Your task to perform on an android device: read, delete, or share a saved page in the chrome app Image 0: 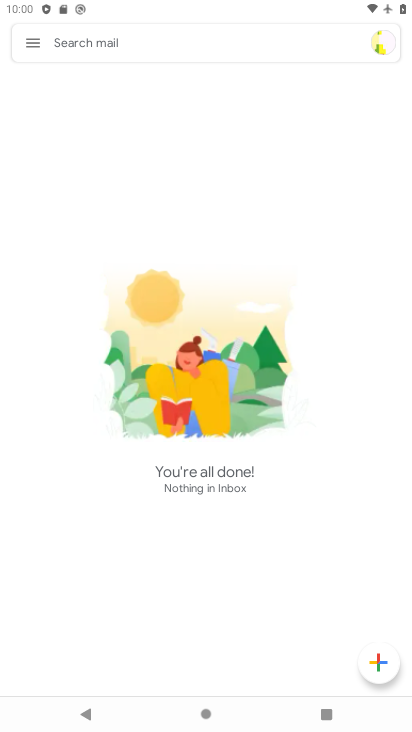
Step 0: press home button
Your task to perform on an android device: read, delete, or share a saved page in the chrome app Image 1: 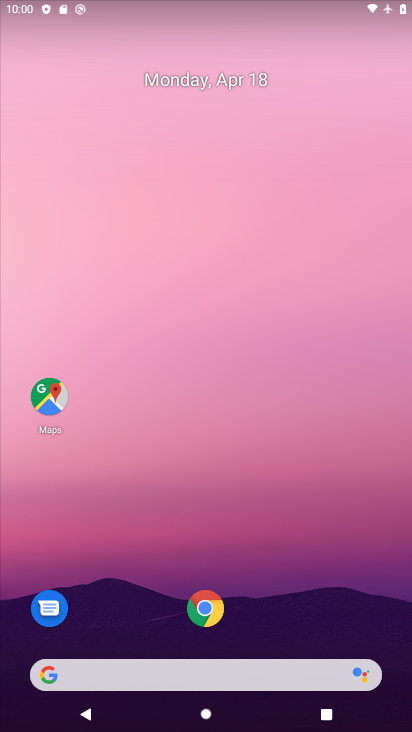
Step 1: click (223, 615)
Your task to perform on an android device: read, delete, or share a saved page in the chrome app Image 2: 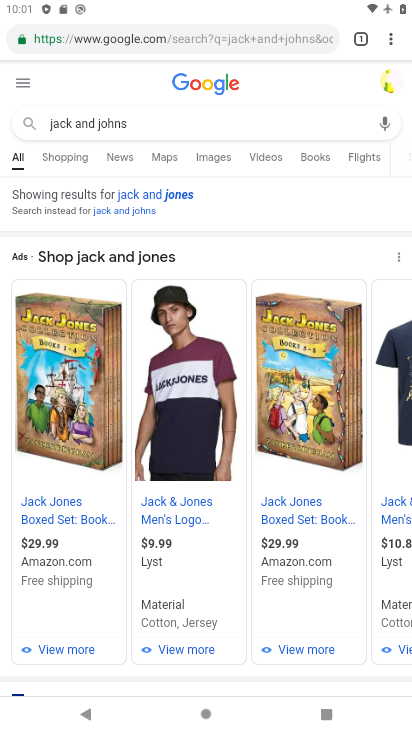
Step 2: task complete